Your task to perform on an android device: find snoozed emails in the gmail app Image 0: 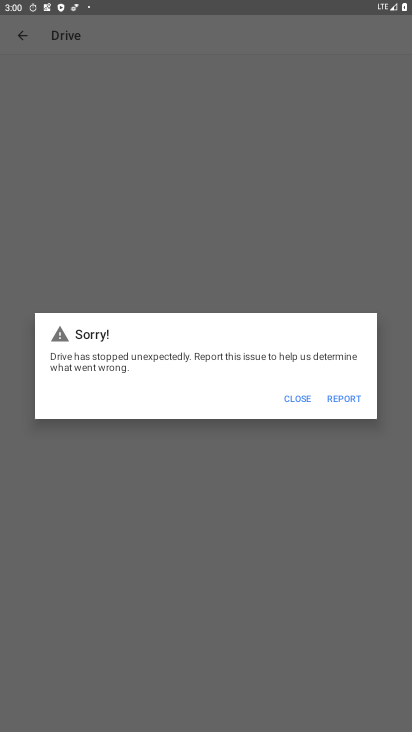
Step 0: press home button
Your task to perform on an android device: find snoozed emails in the gmail app Image 1: 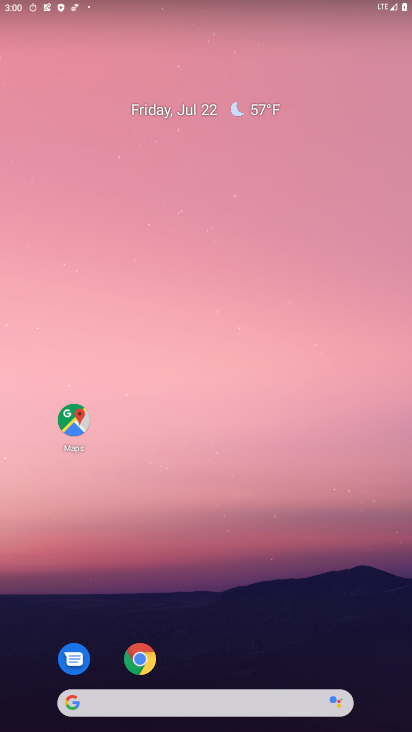
Step 1: drag from (198, 672) to (186, 99)
Your task to perform on an android device: find snoozed emails in the gmail app Image 2: 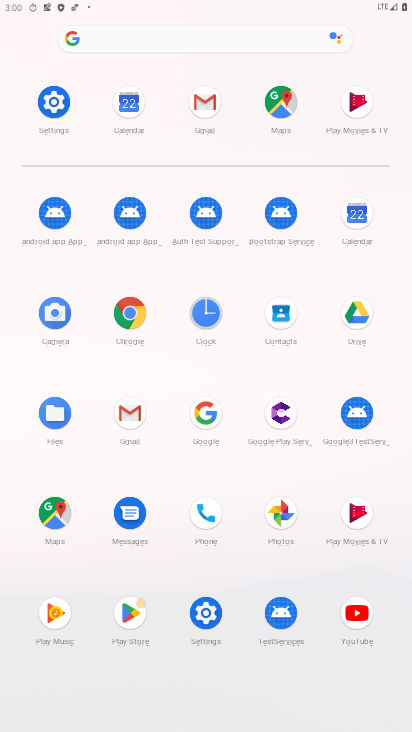
Step 2: click (192, 99)
Your task to perform on an android device: find snoozed emails in the gmail app Image 3: 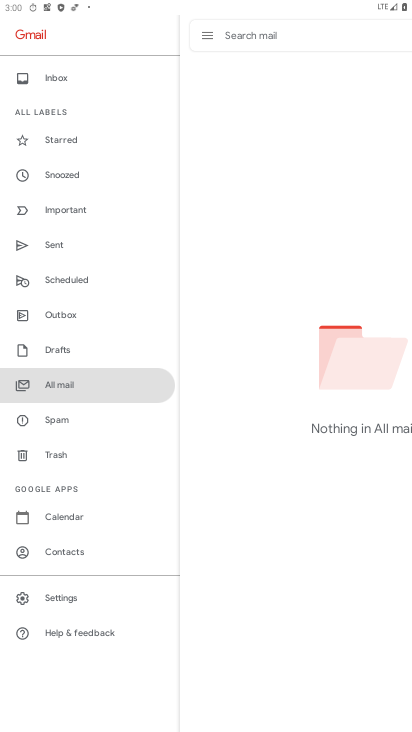
Step 3: click (67, 174)
Your task to perform on an android device: find snoozed emails in the gmail app Image 4: 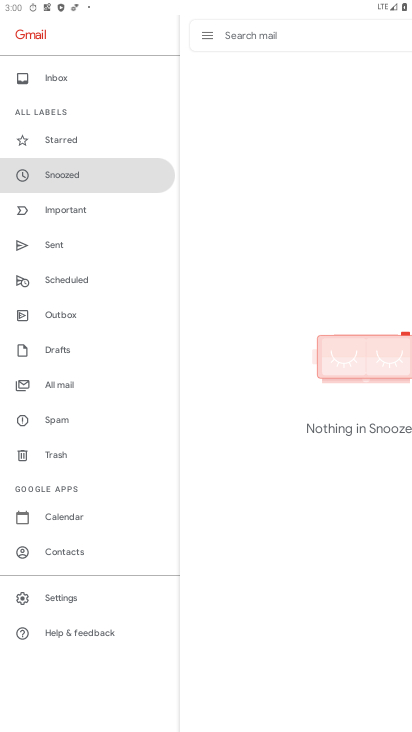
Step 4: task complete